Your task to perform on an android device: Open wifi settings Image 0: 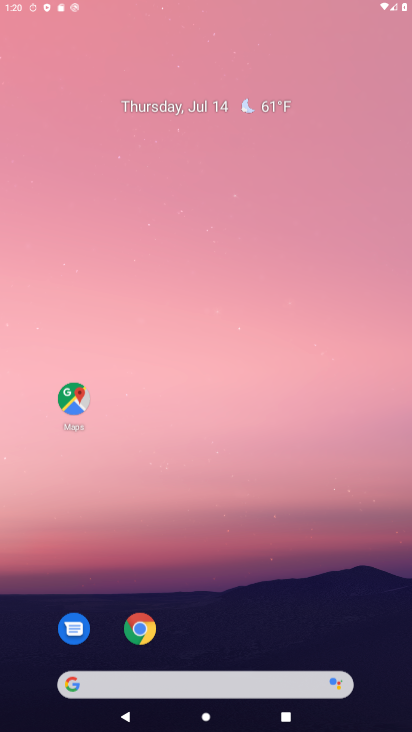
Step 0: click (285, 288)
Your task to perform on an android device: Open wifi settings Image 1: 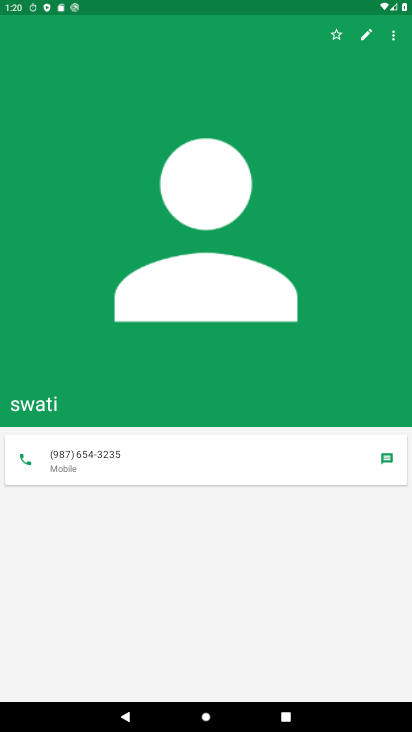
Step 1: drag from (237, 628) to (302, 338)
Your task to perform on an android device: Open wifi settings Image 2: 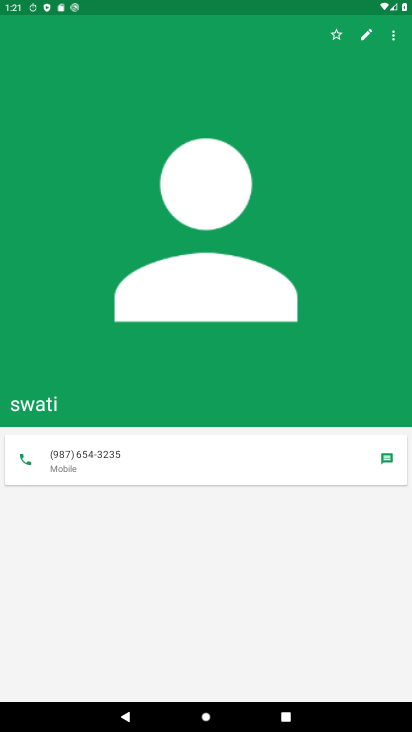
Step 2: drag from (203, 528) to (235, 288)
Your task to perform on an android device: Open wifi settings Image 3: 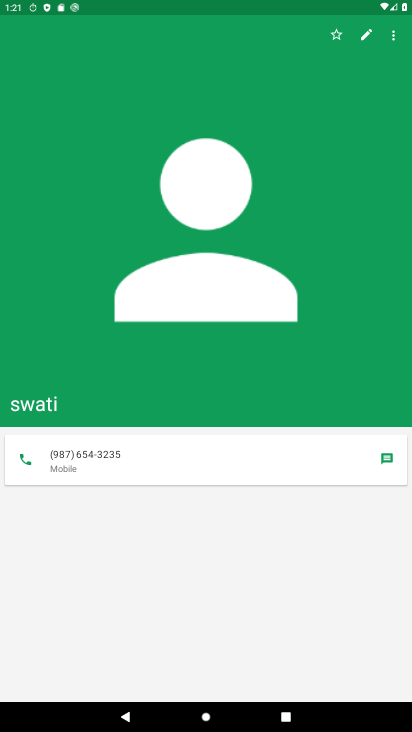
Step 3: drag from (226, 533) to (230, 341)
Your task to perform on an android device: Open wifi settings Image 4: 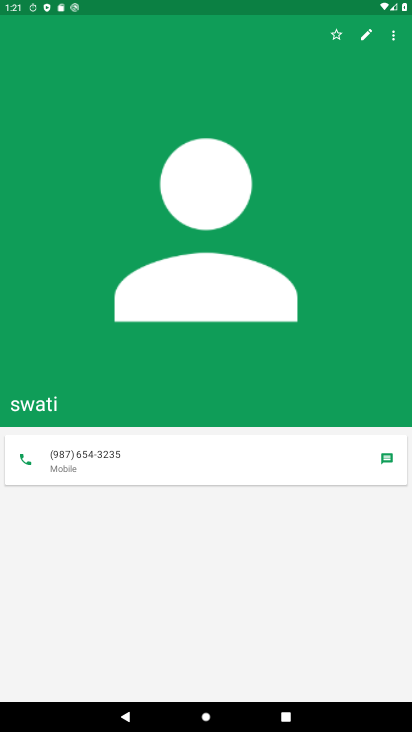
Step 4: drag from (215, 495) to (290, 194)
Your task to perform on an android device: Open wifi settings Image 5: 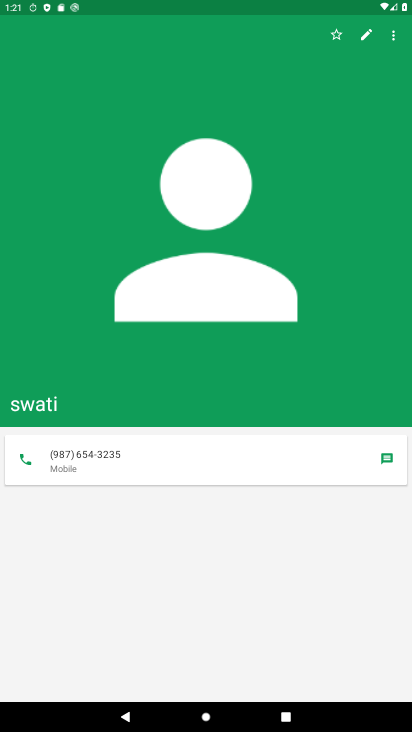
Step 5: drag from (190, 562) to (206, 198)
Your task to perform on an android device: Open wifi settings Image 6: 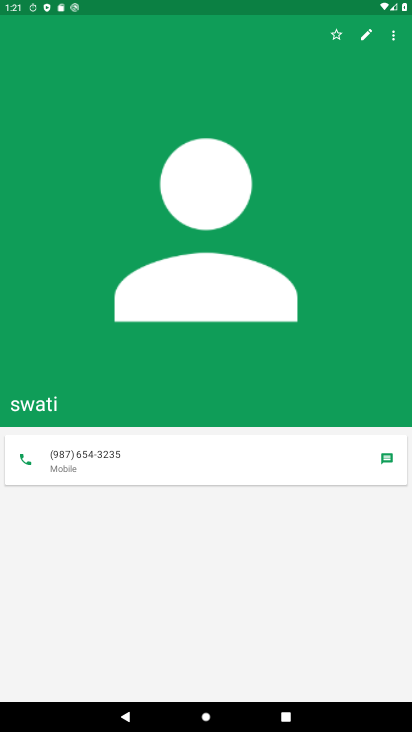
Step 6: drag from (185, 517) to (194, 407)
Your task to perform on an android device: Open wifi settings Image 7: 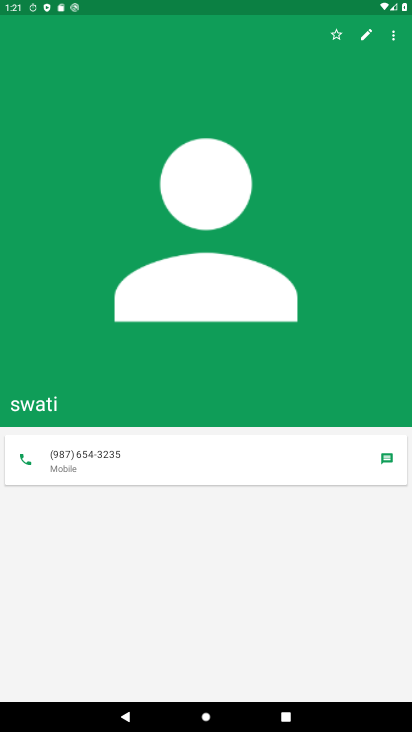
Step 7: press home button
Your task to perform on an android device: Open wifi settings Image 8: 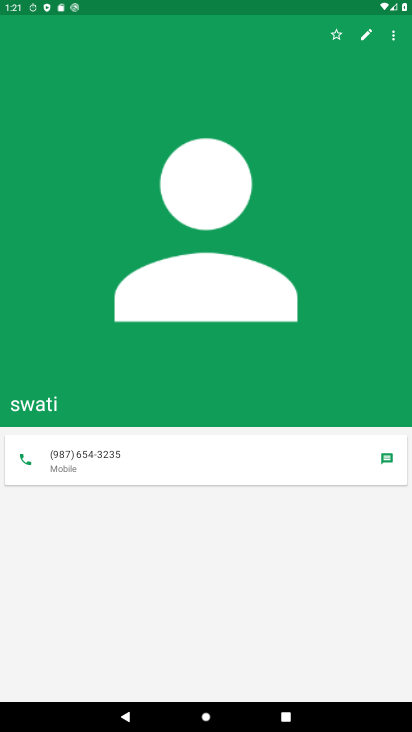
Step 8: press home button
Your task to perform on an android device: Open wifi settings Image 9: 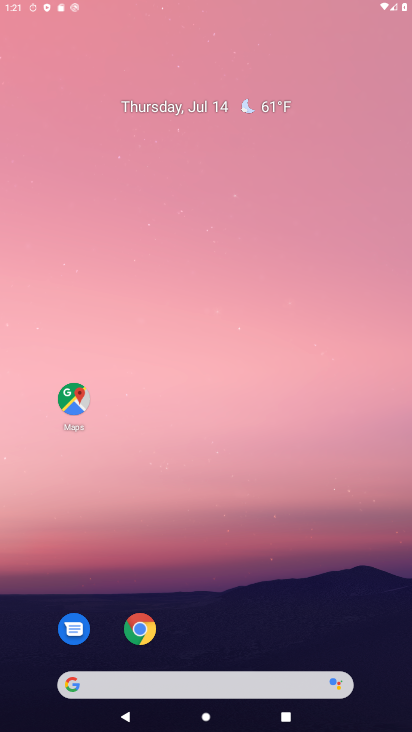
Step 9: drag from (182, 615) to (282, 130)
Your task to perform on an android device: Open wifi settings Image 10: 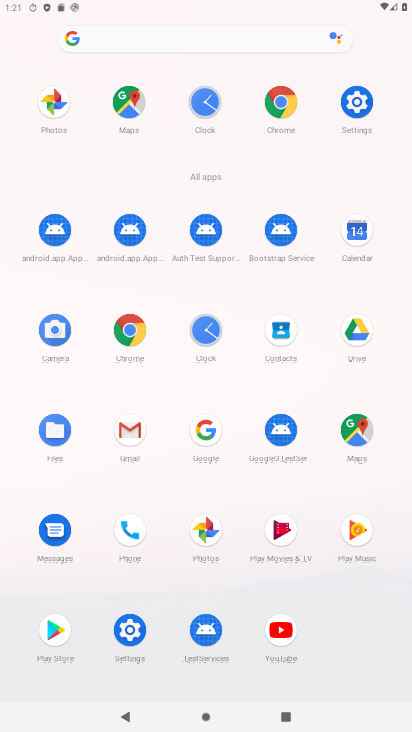
Step 10: click (128, 633)
Your task to perform on an android device: Open wifi settings Image 11: 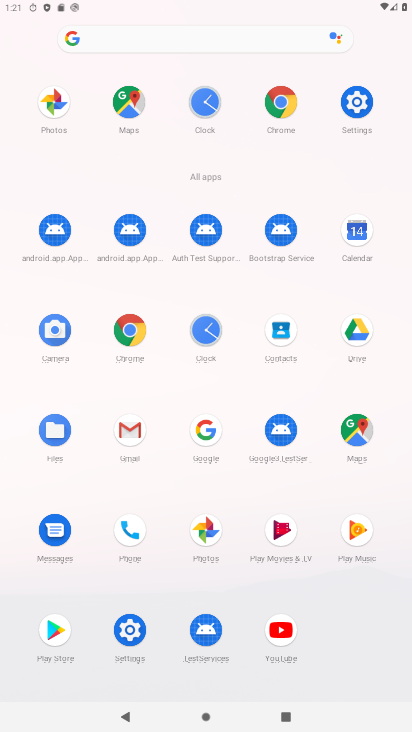
Step 11: click (128, 631)
Your task to perform on an android device: Open wifi settings Image 12: 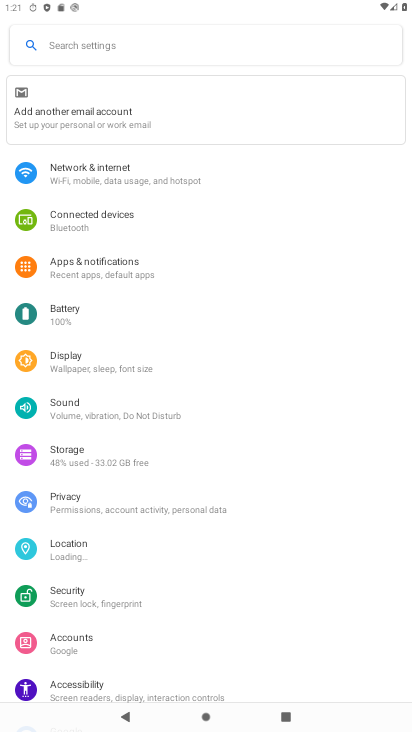
Step 12: click (102, 182)
Your task to perform on an android device: Open wifi settings Image 13: 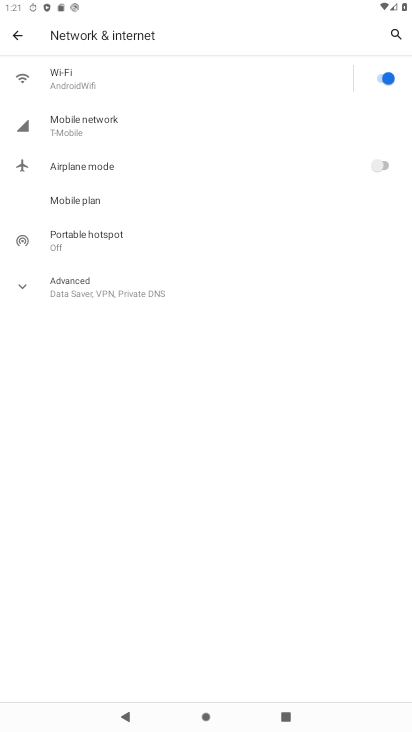
Step 13: click (94, 74)
Your task to perform on an android device: Open wifi settings Image 14: 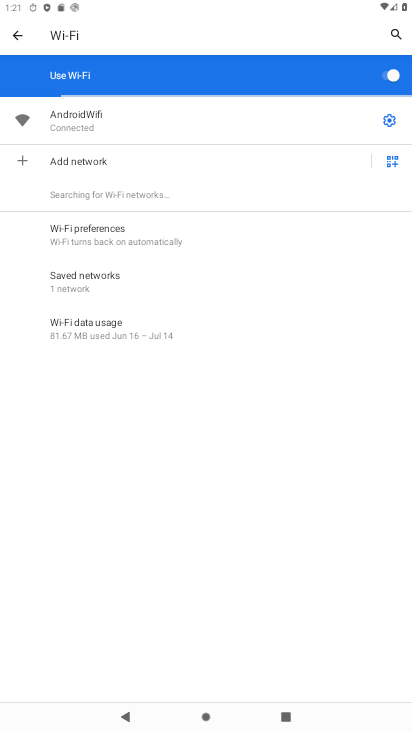
Step 14: drag from (269, 524) to (278, 197)
Your task to perform on an android device: Open wifi settings Image 15: 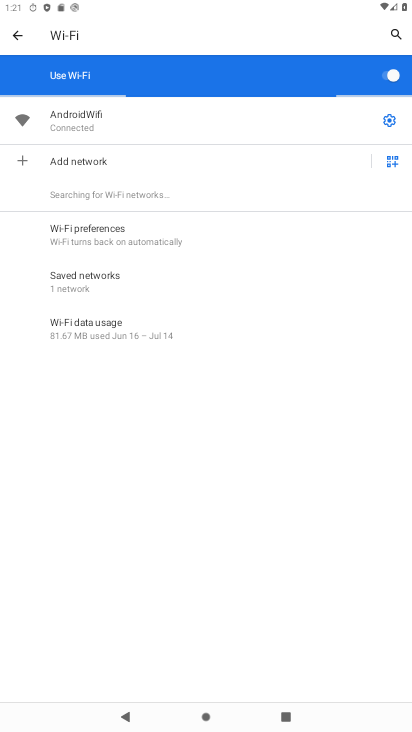
Step 15: click (390, 122)
Your task to perform on an android device: Open wifi settings Image 16: 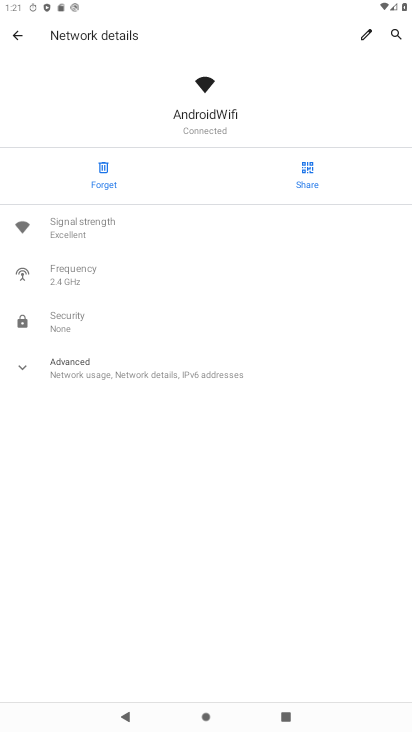
Step 16: task complete